Your task to perform on an android device: open wifi settings Image 0: 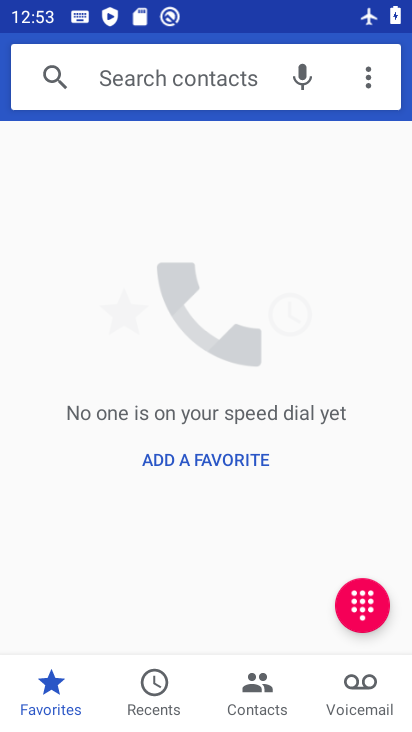
Step 0: press home button
Your task to perform on an android device: open wifi settings Image 1: 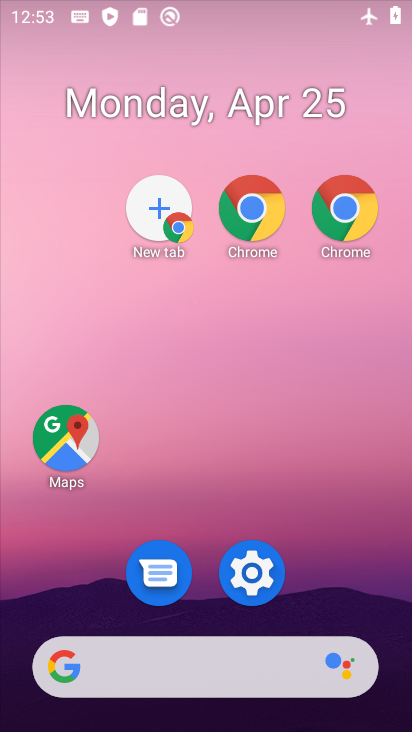
Step 1: drag from (260, 666) to (409, 239)
Your task to perform on an android device: open wifi settings Image 2: 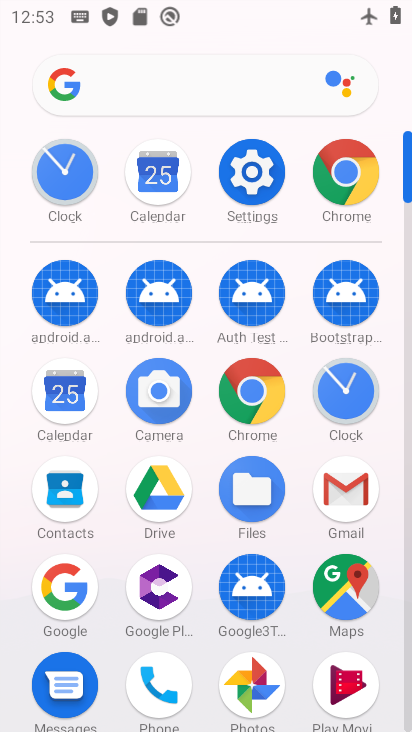
Step 2: click (236, 185)
Your task to perform on an android device: open wifi settings Image 3: 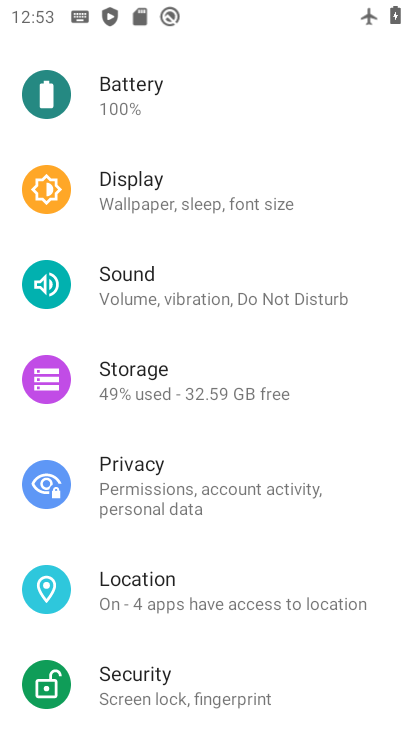
Step 3: drag from (127, 153) to (215, 635)
Your task to perform on an android device: open wifi settings Image 4: 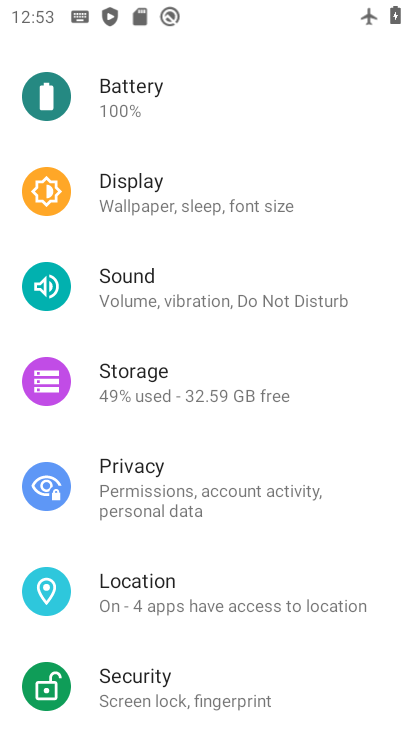
Step 4: drag from (192, 412) to (218, 502)
Your task to perform on an android device: open wifi settings Image 5: 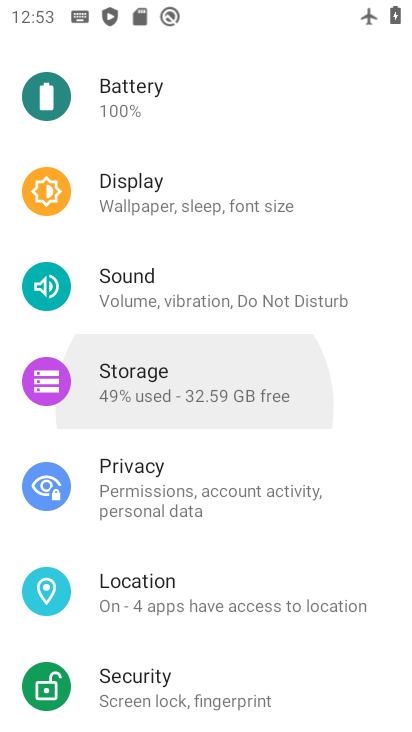
Step 5: drag from (255, 590) to (265, 651)
Your task to perform on an android device: open wifi settings Image 6: 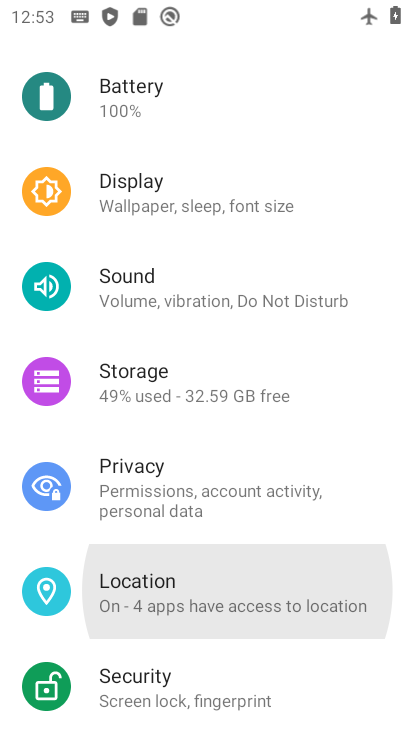
Step 6: drag from (199, 266) to (209, 545)
Your task to perform on an android device: open wifi settings Image 7: 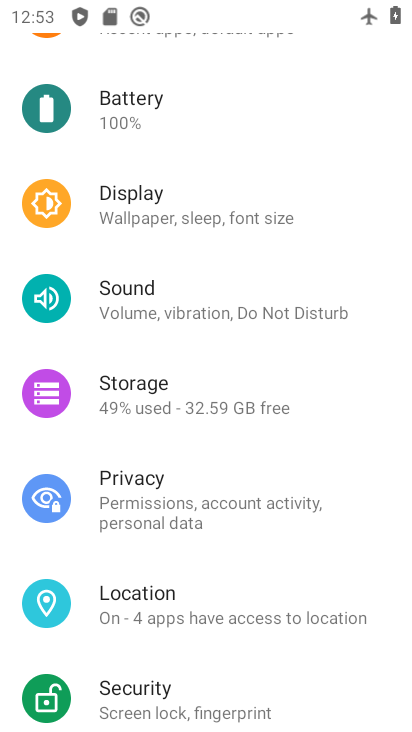
Step 7: drag from (133, 102) to (197, 506)
Your task to perform on an android device: open wifi settings Image 8: 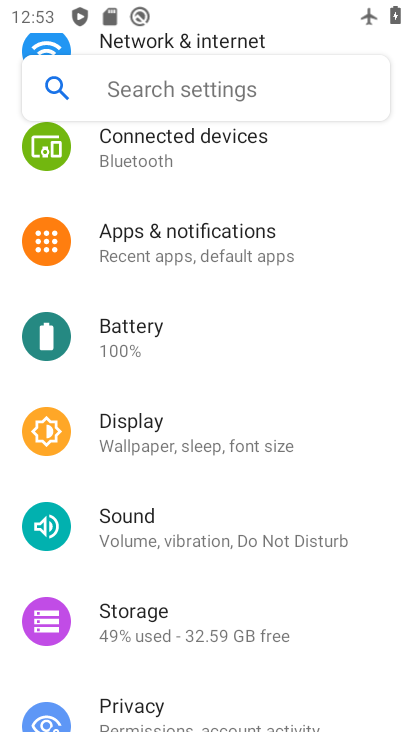
Step 8: drag from (209, 264) to (259, 557)
Your task to perform on an android device: open wifi settings Image 9: 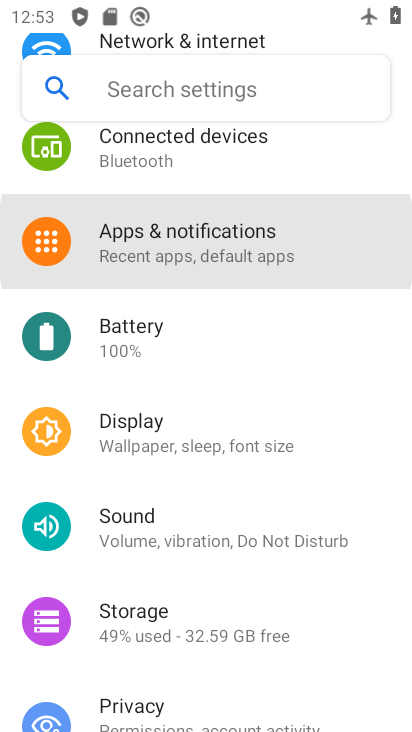
Step 9: drag from (234, 207) to (327, 560)
Your task to perform on an android device: open wifi settings Image 10: 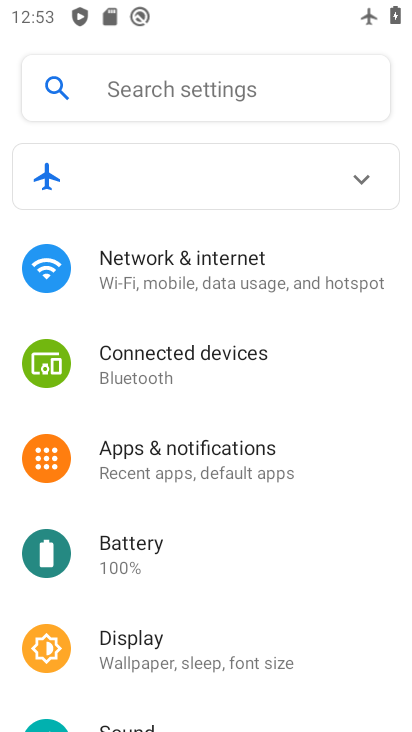
Step 10: click (175, 262)
Your task to perform on an android device: open wifi settings Image 11: 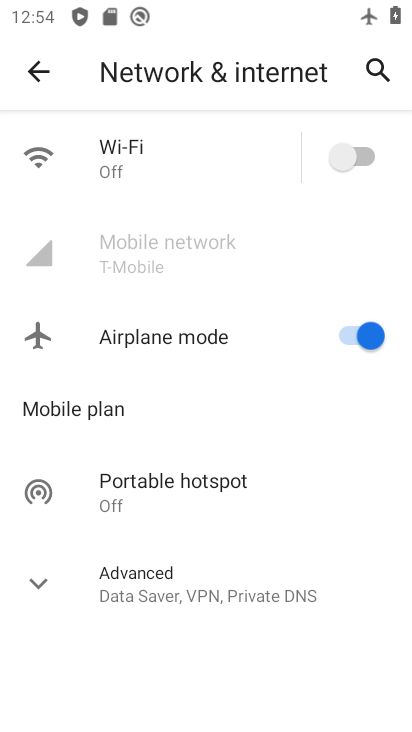
Step 11: click (349, 155)
Your task to perform on an android device: open wifi settings Image 12: 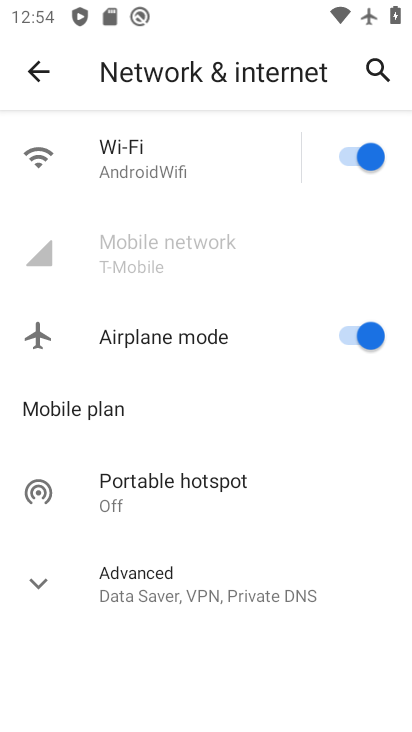
Step 12: task complete